Your task to perform on an android device: turn off airplane mode Image 0: 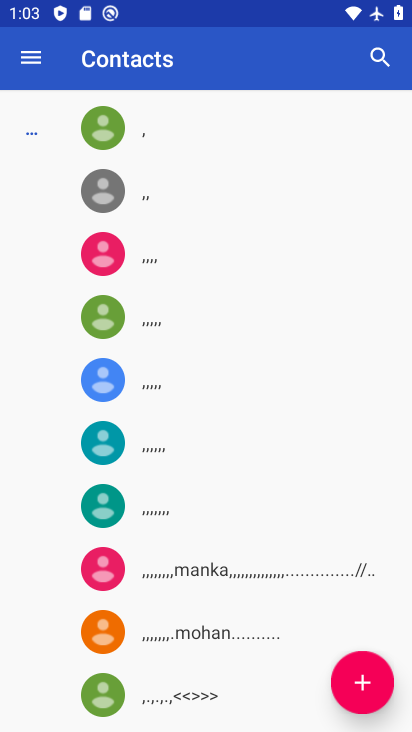
Step 0: press home button
Your task to perform on an android device: turn off airplane mode Image 1: 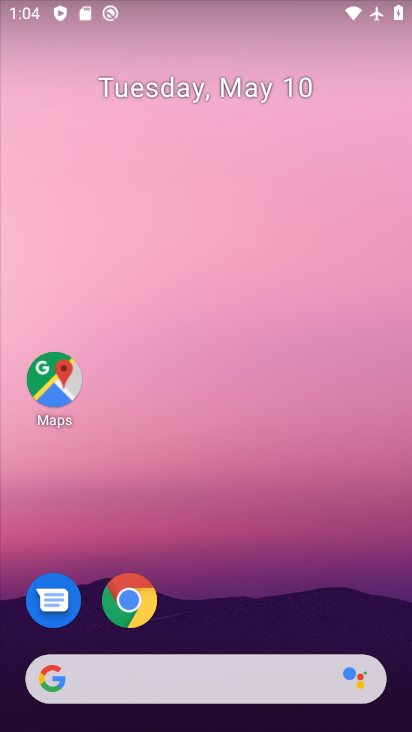
Step 1: drag from (207, 613) to (226, 123)
Your task to perform on an android device: turn off airplane mode Image 2: 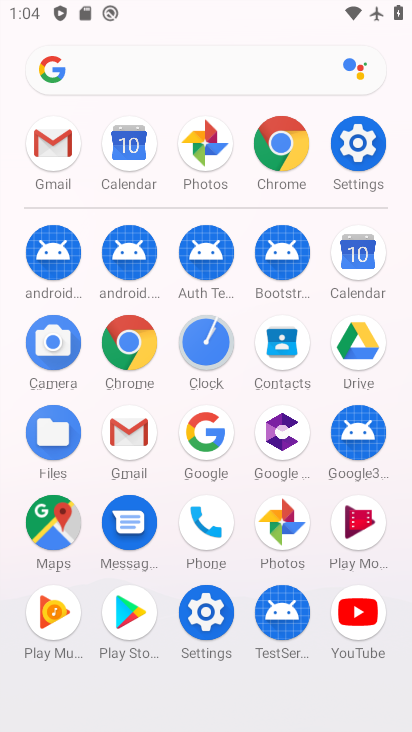
Step 2: click (350, 173)
Your task to perform on an android device: turn off airplane mode Image 3: 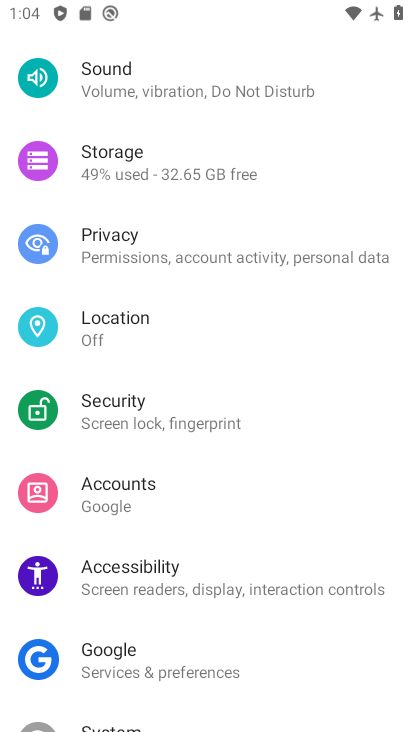
Step 3: drag from (256, 187) to (266, 729)
Your task to perform on an android device: turn off airplane mode Image 4: 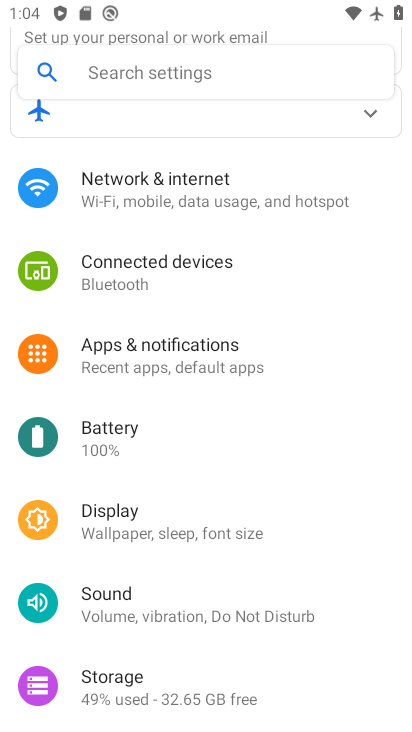
Step 4: click (241, 176)
Your task to perform on an android device: turn off airplane mode Image 5: 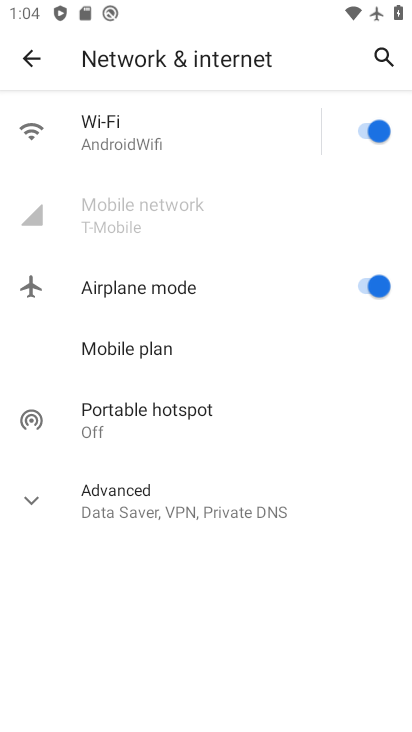
Step 5: click (346, 296)
Your task to perform on an android device: turn off airplane mode Image 6: 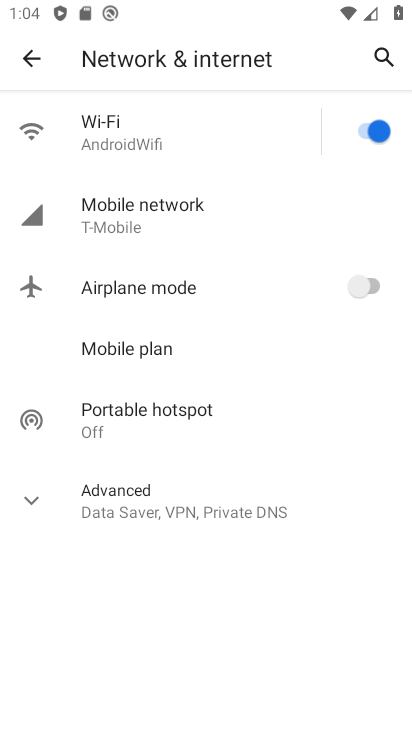
Step 6: task complete